Your task to perform on an android device: all mails in gmail Image 0: 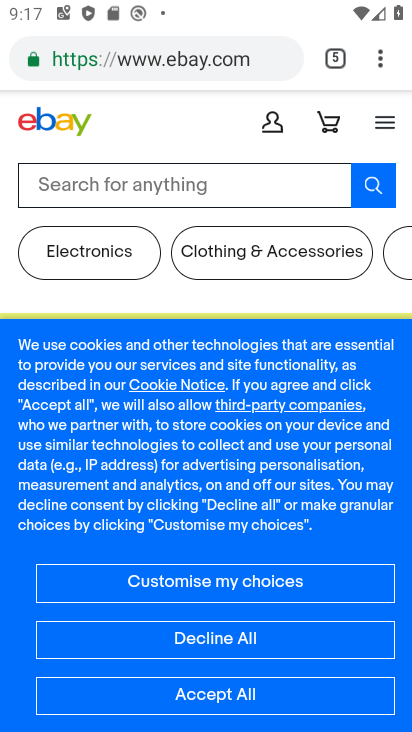
Step 0: press home button
Your task to perform on an android device: all mails in gmail Image 1: 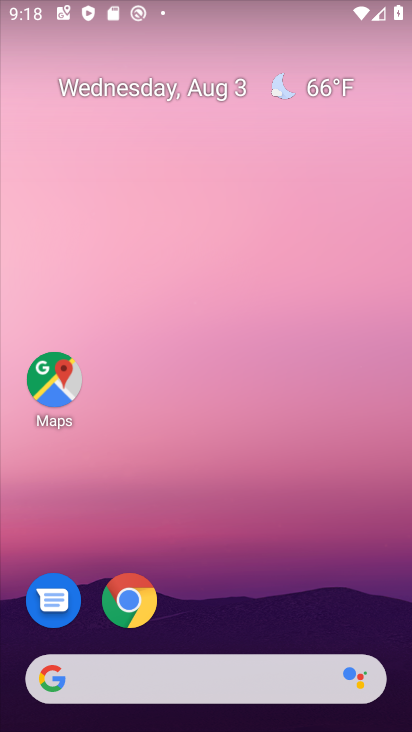
Step 1: drag from (242, 620) to (247, 6)
Your task to perform on an android device: all mails in gmail Image 2: 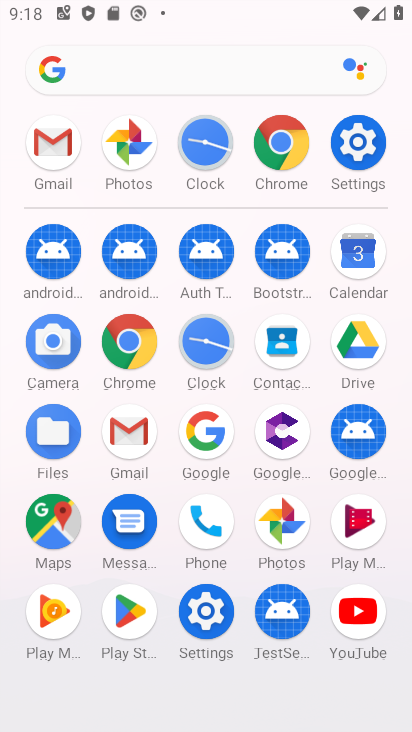
Step 2: click (134, 447)
Your task to perform on an android device: all mails in gmail Image 3: 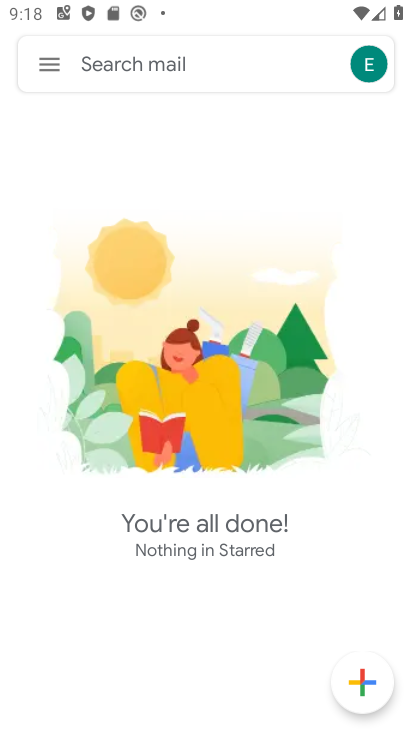
Step 3: click (37, 66)
Your task to perform on an android device: all mails in gmail Image 4: 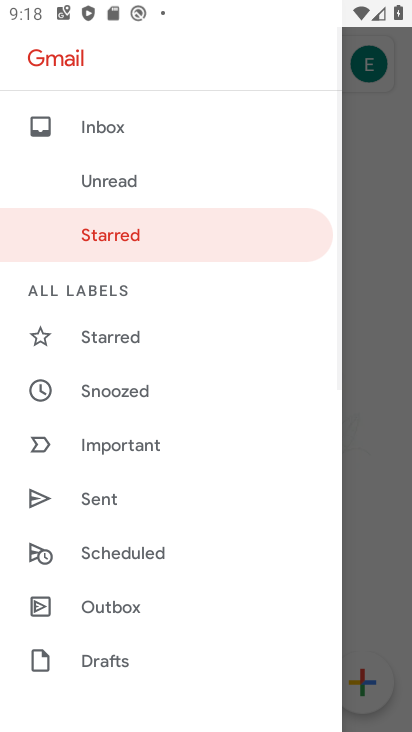
Step 4: drag from (97, 609) to (131, 298)
Your task to perform on an android device: all mails in gmail Image 5: 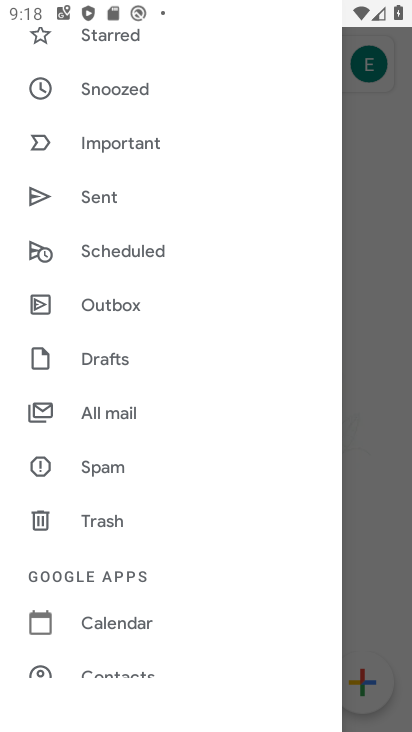
Step 5: click (114, 422)
Your task to perform on an android device: all mails in gmail Image 6: 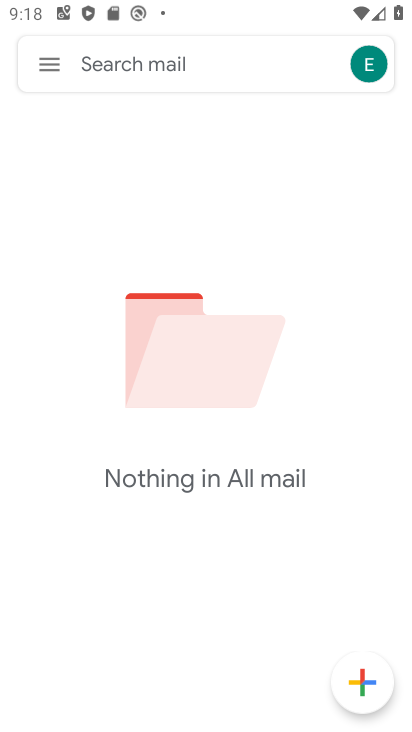
Step 6: task complete